Your task to perform on an android device: Open Reddit.com Image 0: 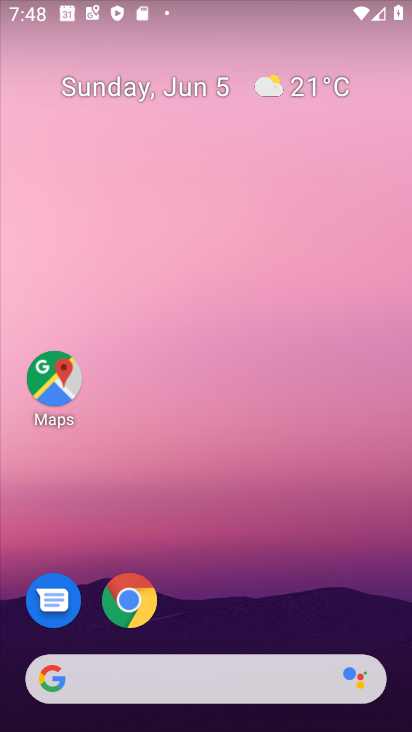
Step 0: click (179, 685)
Your task to perform on an android device: Open Reddit.com Image 1: 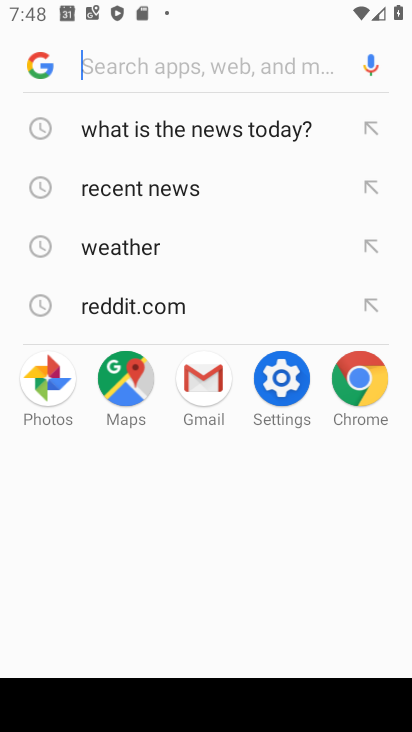
Step 1: type "reddit.com"
Your task to perform on an android device: Open Reddit.com Image 2: 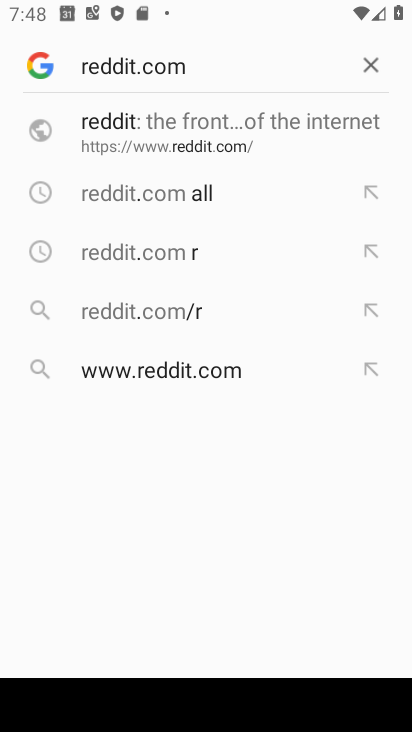
Step 2: click (179, 128)
Your task to perform on an android device: Open Reddit.com Image 3: 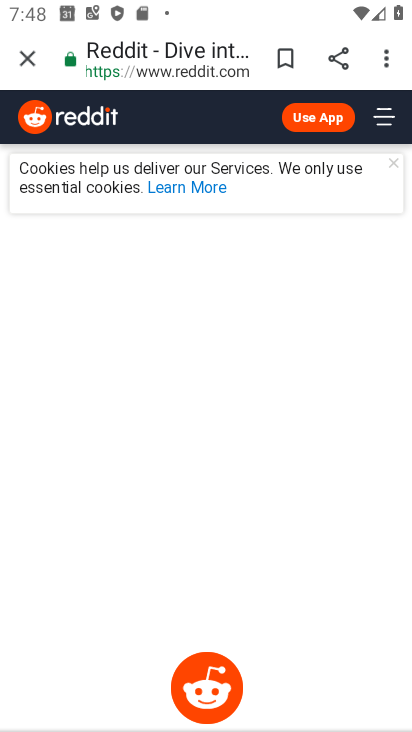
Step 3: task complete